Your task to perform on an android device: Show the shopping cart on target.com. Search for logitech g903 on target.com, select the first entry, add it to the cart, then select checkout. Image 0: 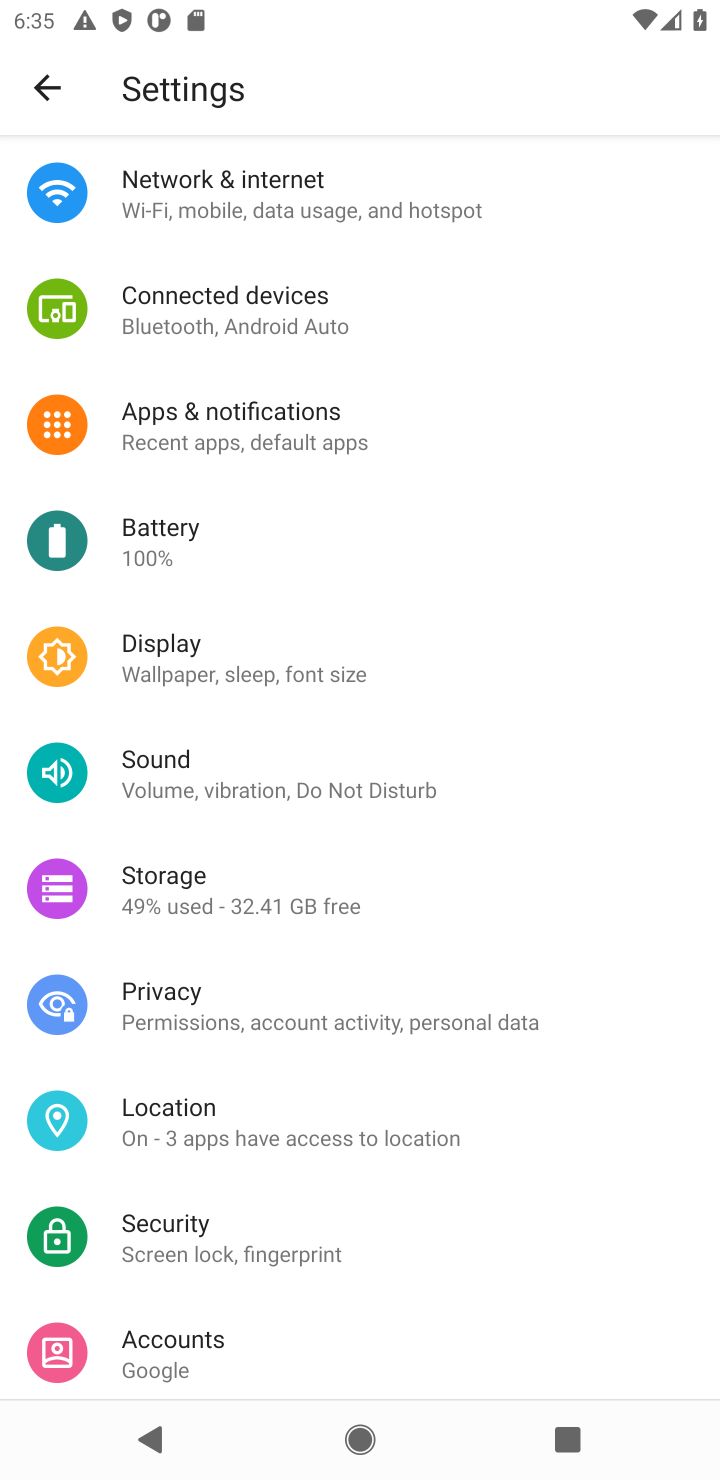
Step 0: press home button
Your task to perform on an android device: Show the shopping cart on target.com. Search for logitech g903 on target.com, select the first entry, add it to the cart, then select checkout. Image 1: 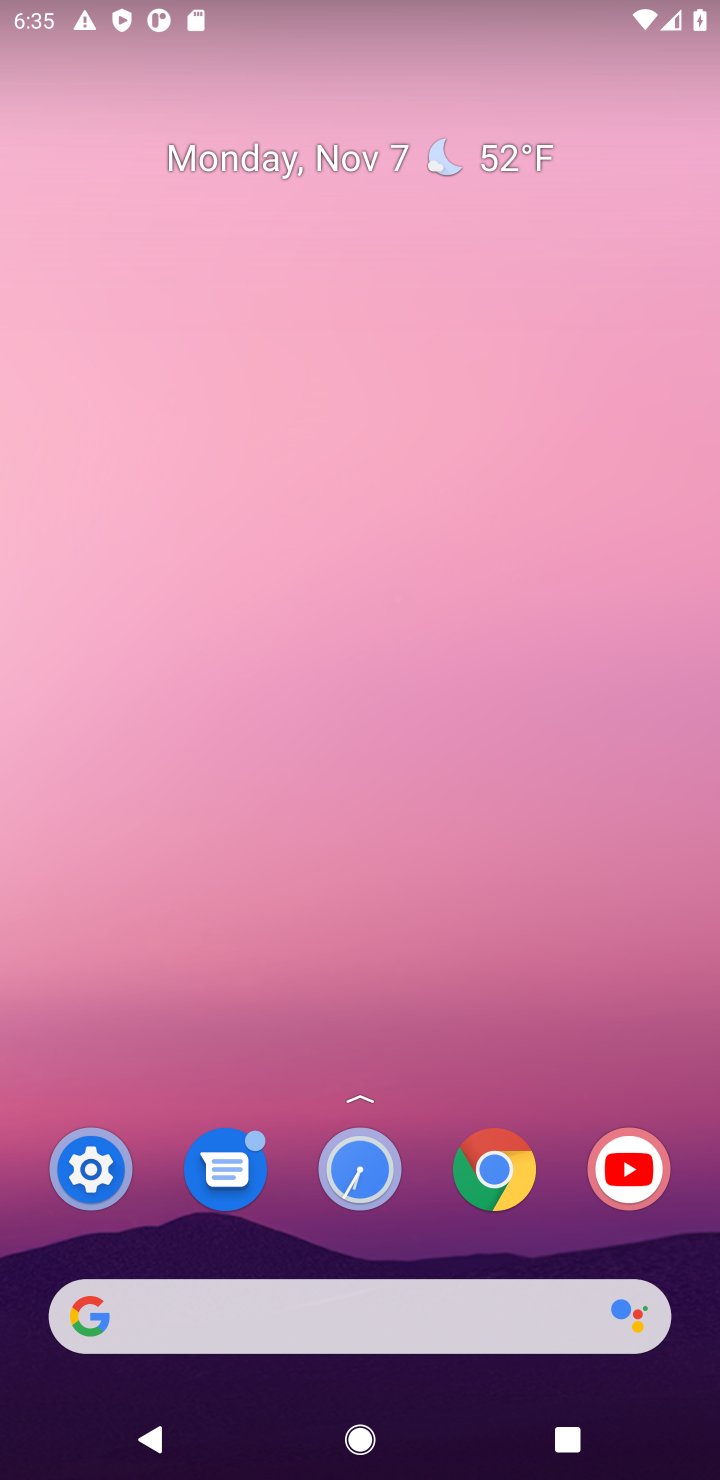
Step 1: click (509, 1180)
Your task to perform on an android device: Show the shopping cart on target.com. Search for logitech g903 on target.com, select the first entry, add it to the cart, then select checkout. Image 2: 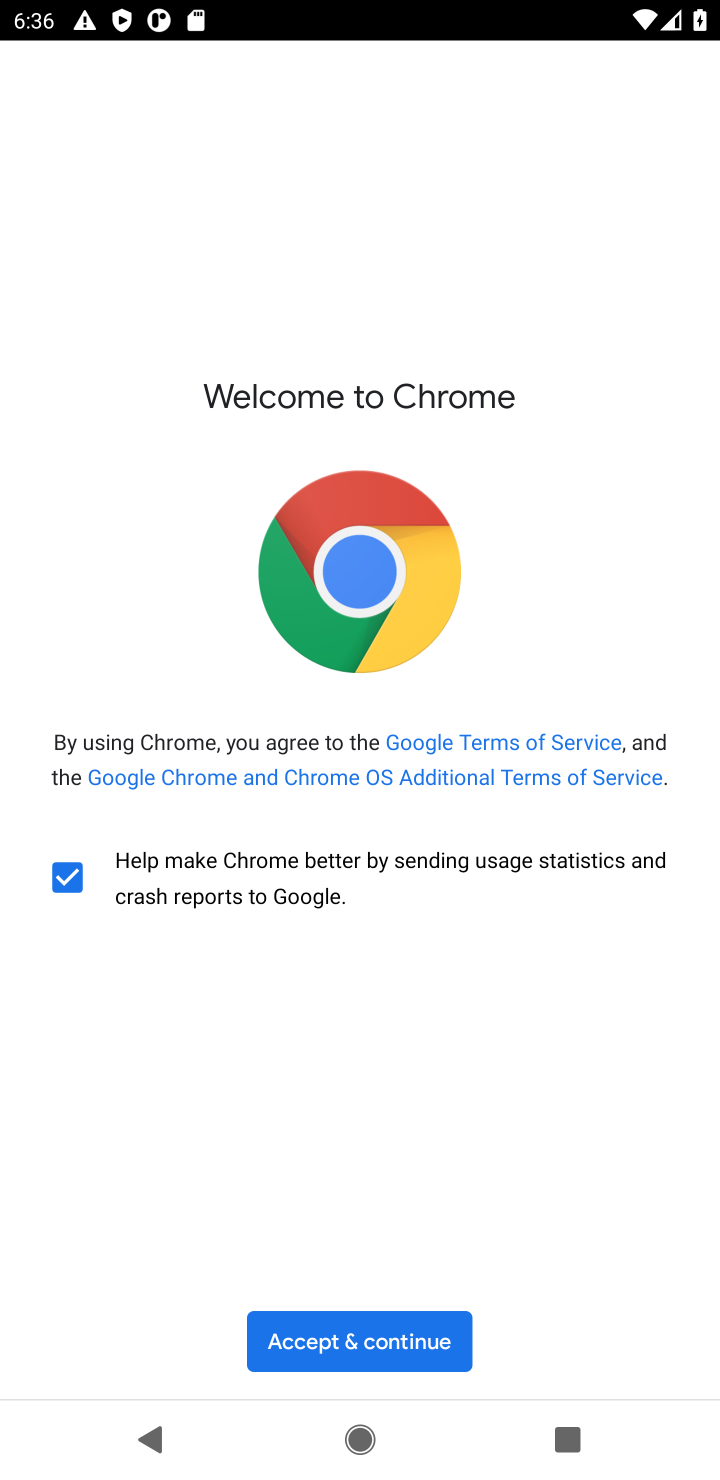
Step 2: click (317, 1340)
Your task to perform on an android device: Show the shopping cart on target.com. Search for logitech g903 on target.com, select the first entry, add it to the cart, then select checkout. Image 3: 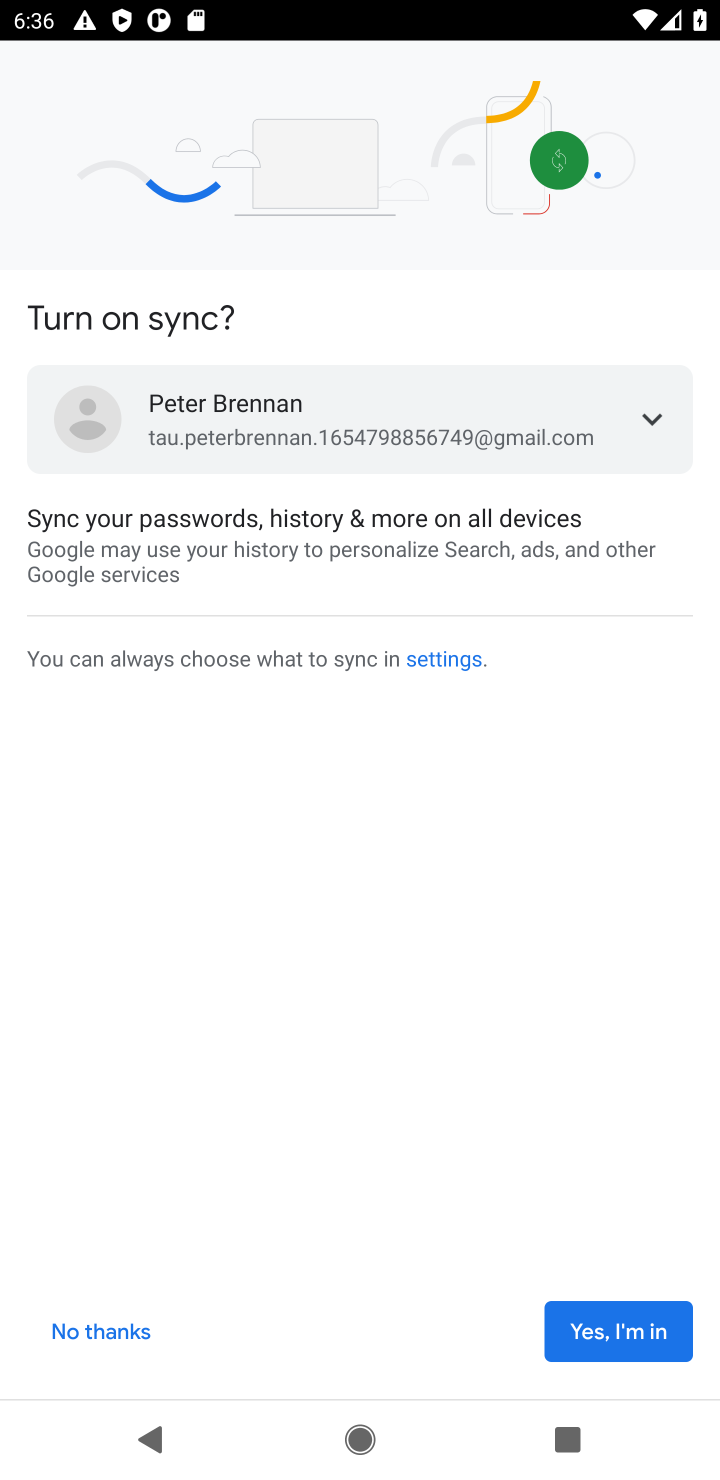
Step 3: click (609, 1341)
Your task to perform on an android device: Show the shopping cart on target.com. Search for logitech g903 on target.com, select the first entry, add it to the cart, then select checkout. Image 4: 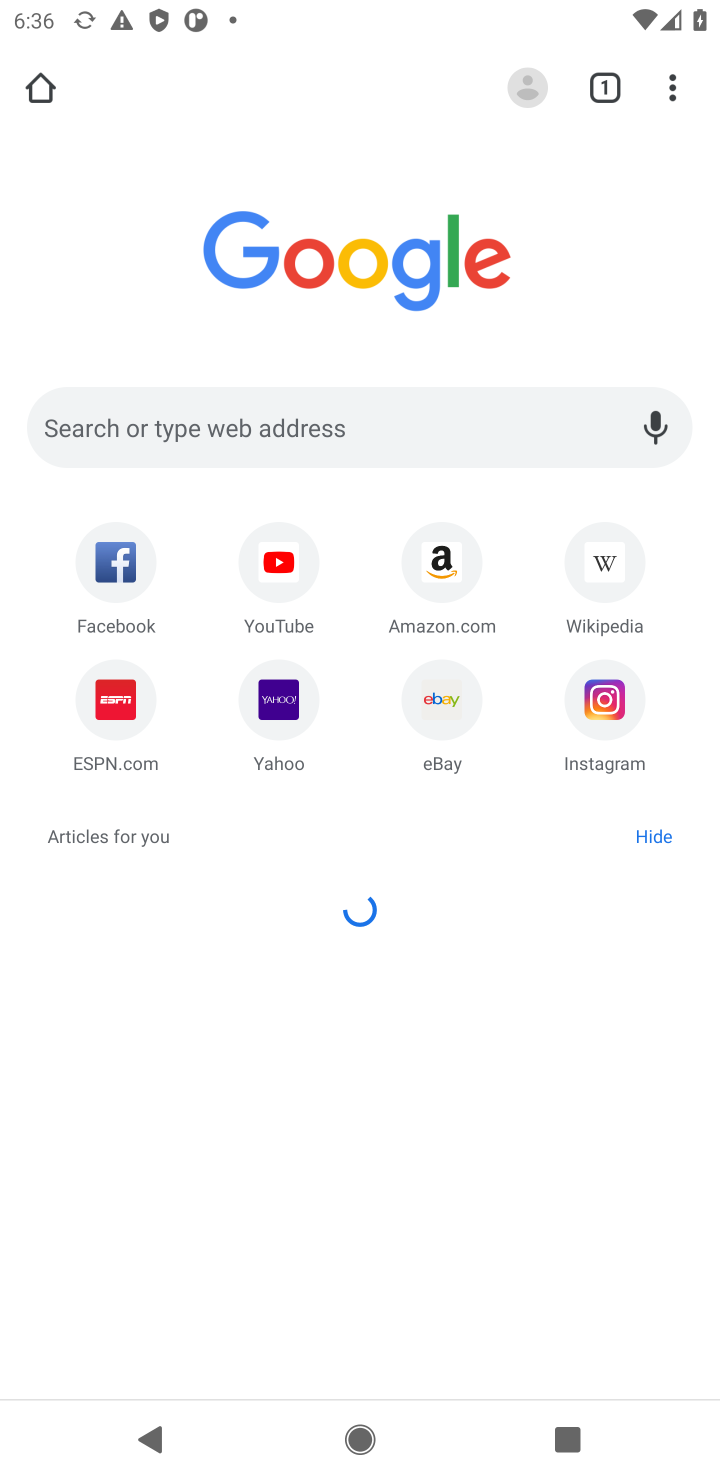
Step 4: click (328, 417)
Your task to perform on an android device: Show the shopping cart on target.com. Search for logitech g903 on target.com, select the first entry, add it to the cart, then select checkout. Image 5: 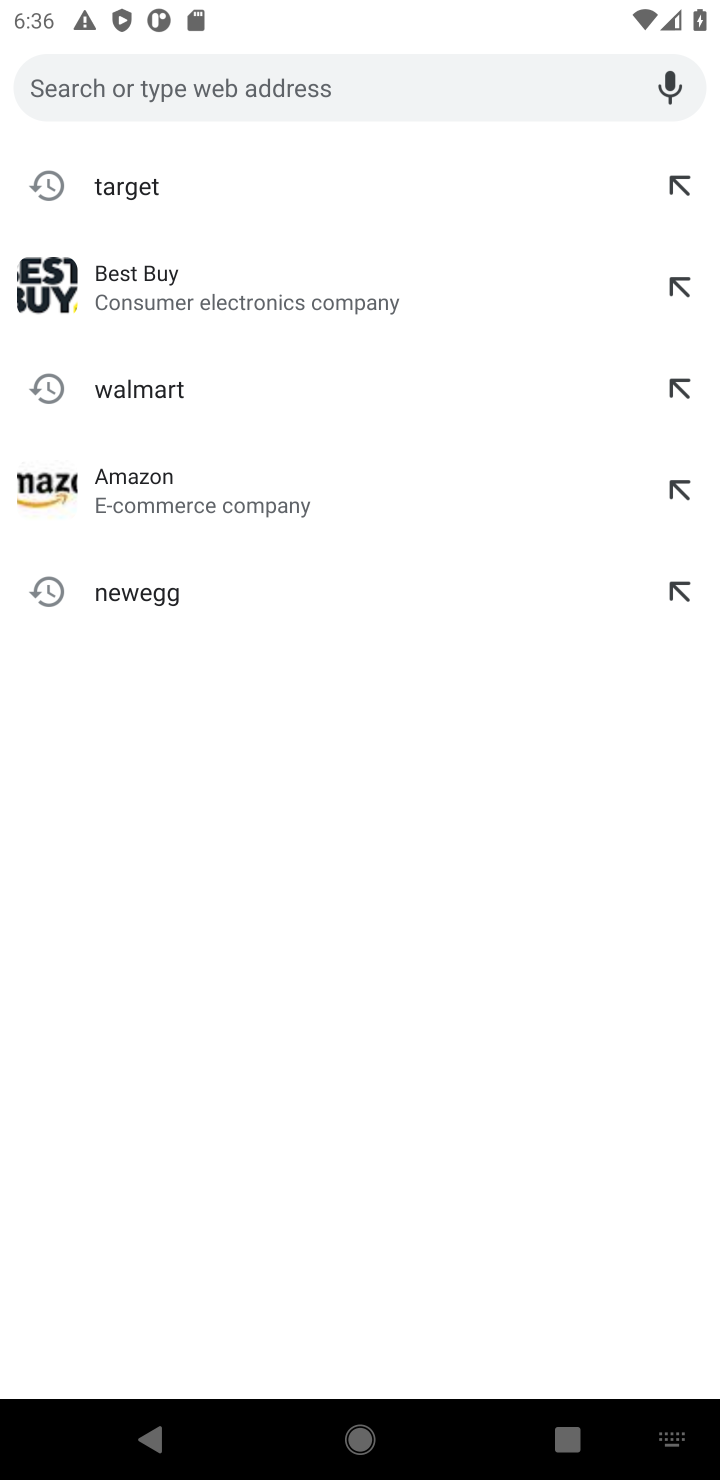
Step 5: click (119, 175)
Your task to perform on an android device: Show the shopping cart on target.com. Search for logitech g903 on target.com, select the first entry, add it to the cart, then select checkout. Image 6: 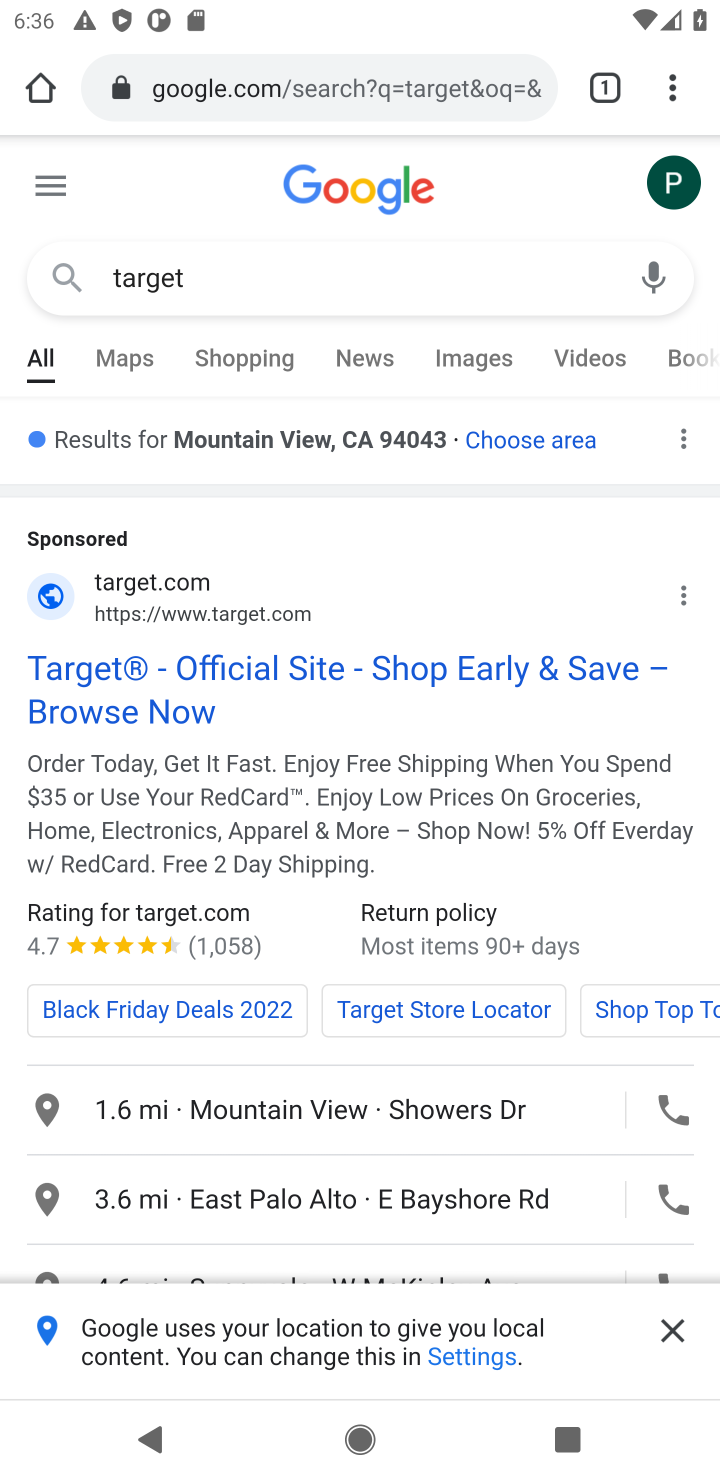
Step 6: click (676, 1321)
Your task to perform on an android device: Show the shopping cart on target.com. Search for logitech g903 on target.com, select the first entry, add it to the cart, then select checkout. Image 7: 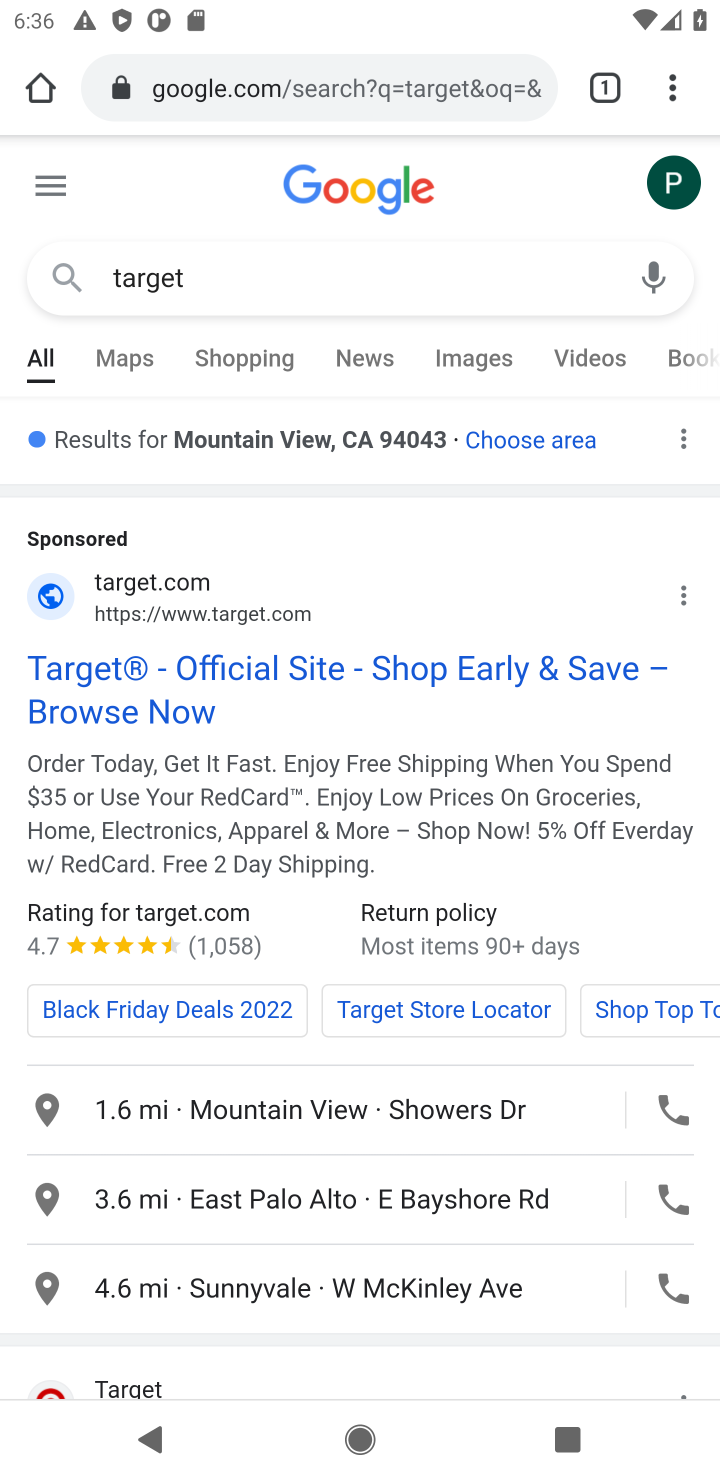
Step 7: drag from (438, 1279) to (492, 527)
Your task to perform on an android device: Show the shopping cart on target.com. Search for logitech g903 on target.com, select the first entry, add it to the cart, then select checkout. Image 8: 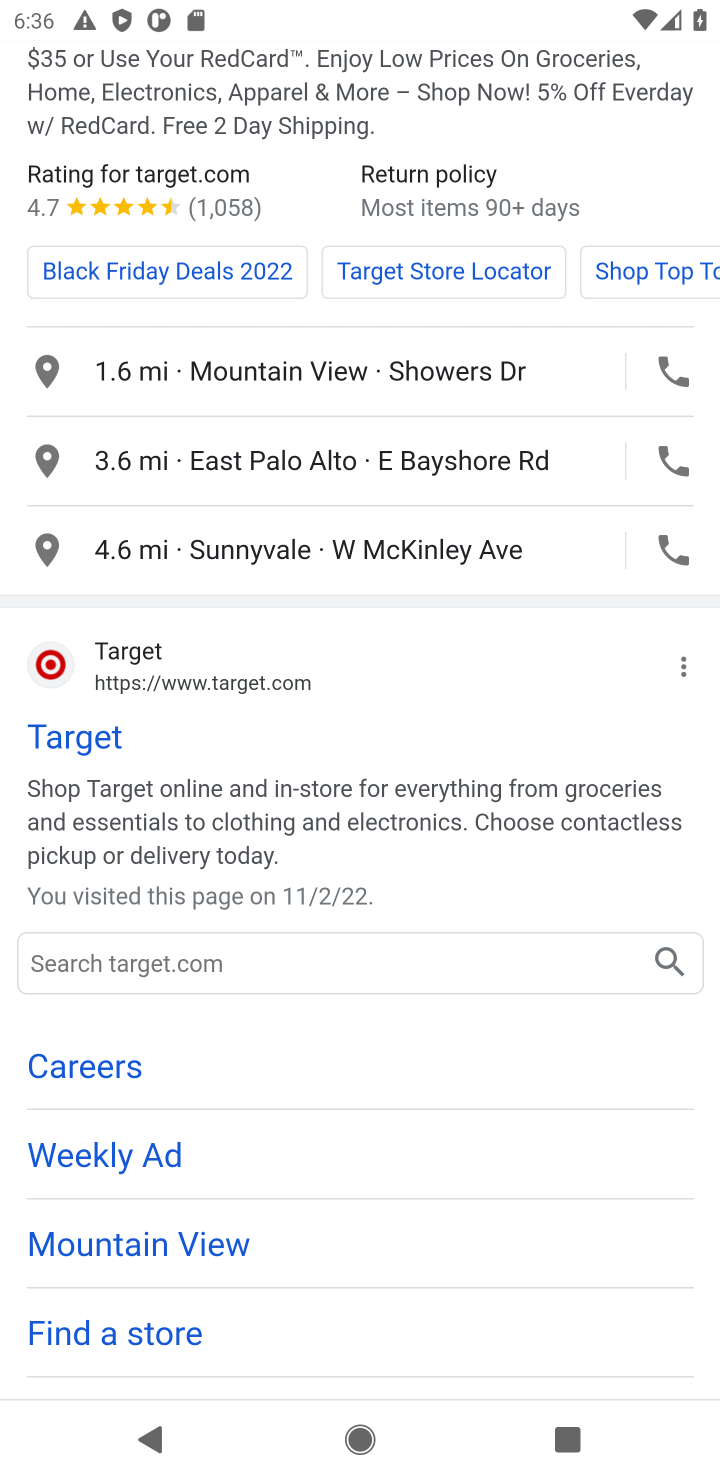
Step 8: click (114, 967)
Your task to perform on an android device: Show the shopping cart on target.com. Search for logitech g903 on target.com, select the first entry, add it to the cart, then select checkout. Image 9: 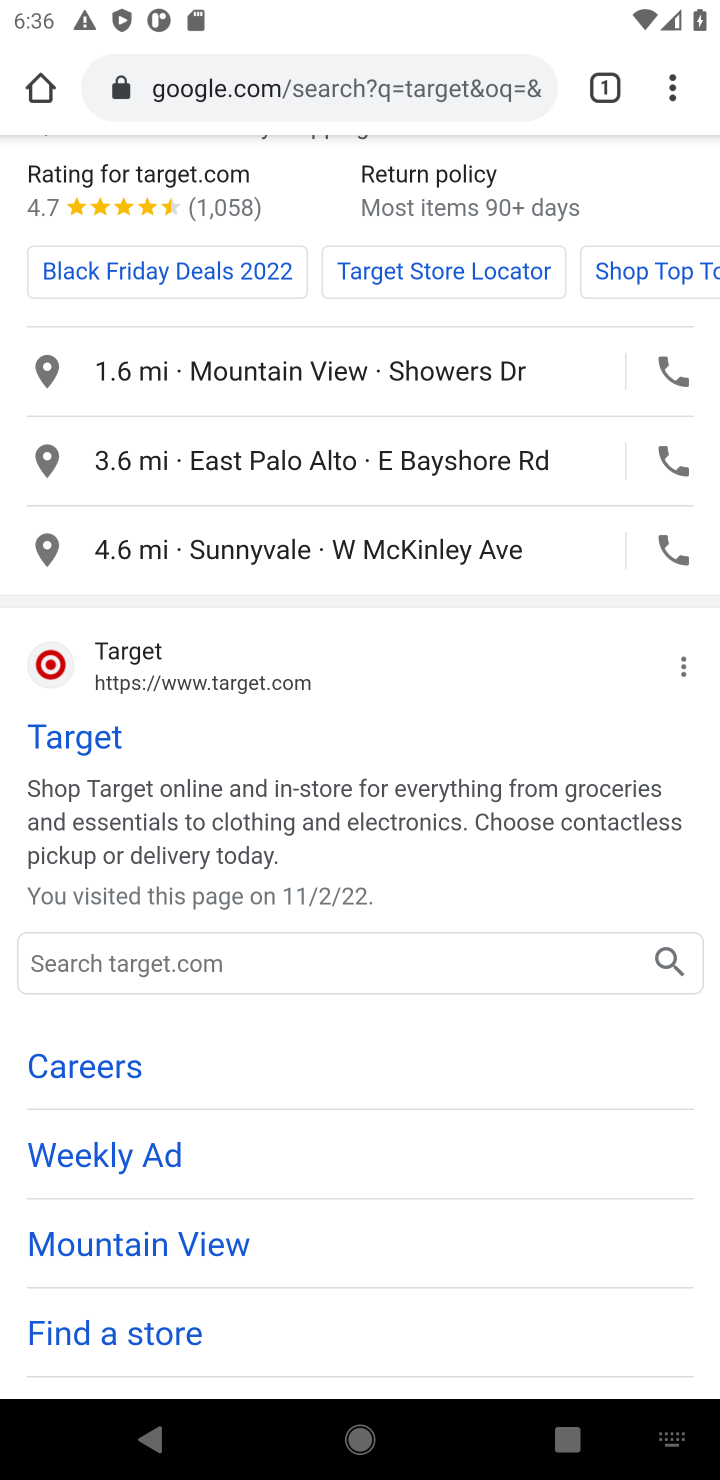
Step 9: type "logitech g903"
Your task to perform on an android device: Show the shopping cart on target.com. Search for logitech g903 on target.com, select the first entry, add it to the cart, then select checkout. Image 10: 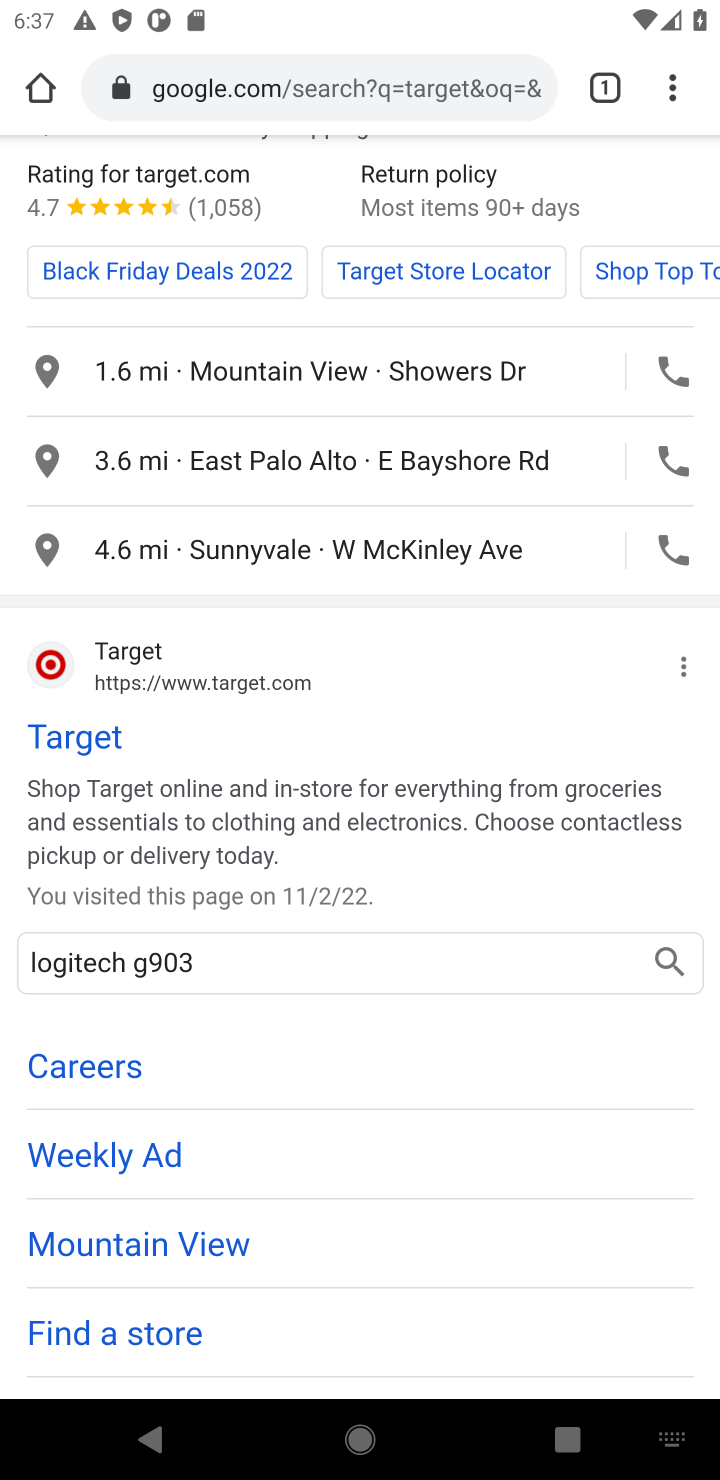
Step 10: click (668, 951)
Your task to perform on an android device: Show the shopping cart on target.com. Search for logitech g903 on target.com, select the first entry, add it to the cart, then select checkout. Image 11: 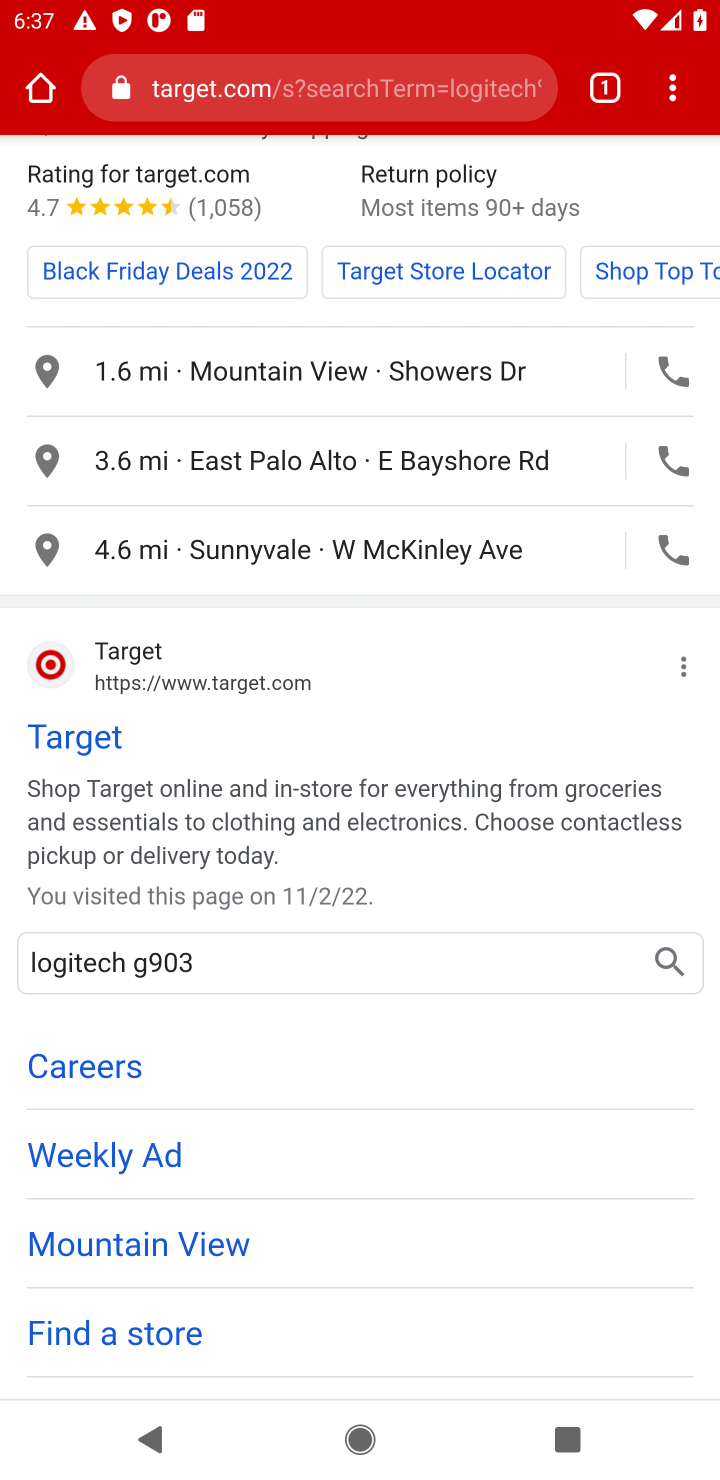
Step 11: click (666, 954)
Your task to perform on an android device: Show the shopping cart on target.com. Search for logitech g903 on target.com, select the first entry, add it to the cart, then select checkout. Image 12: 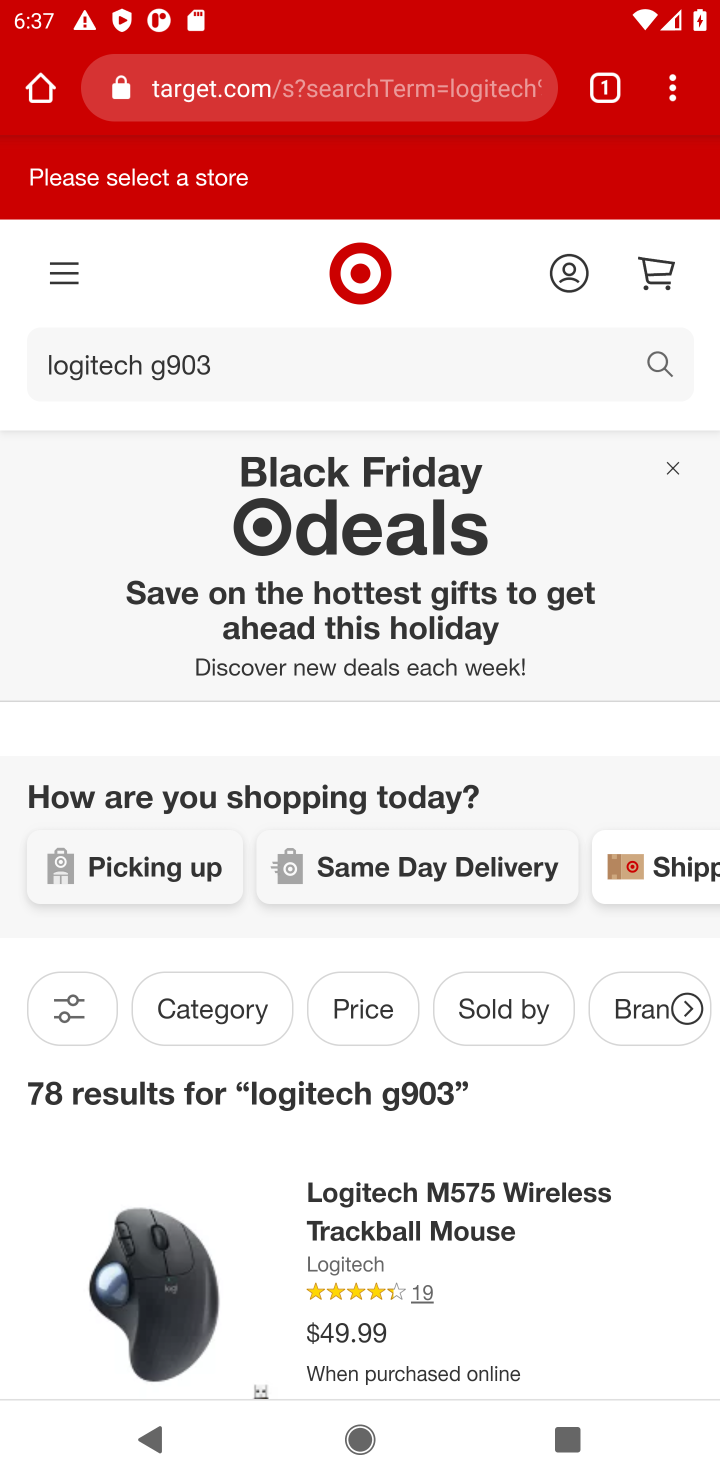
Step 12: drag from (504, 1124) to (410, 484)
Your task to perform on an android device: Show the shopping cart on target.com. Search for logitech g903 on target.com, select the first entry, add it to the cart, then select checkout. Image 13: 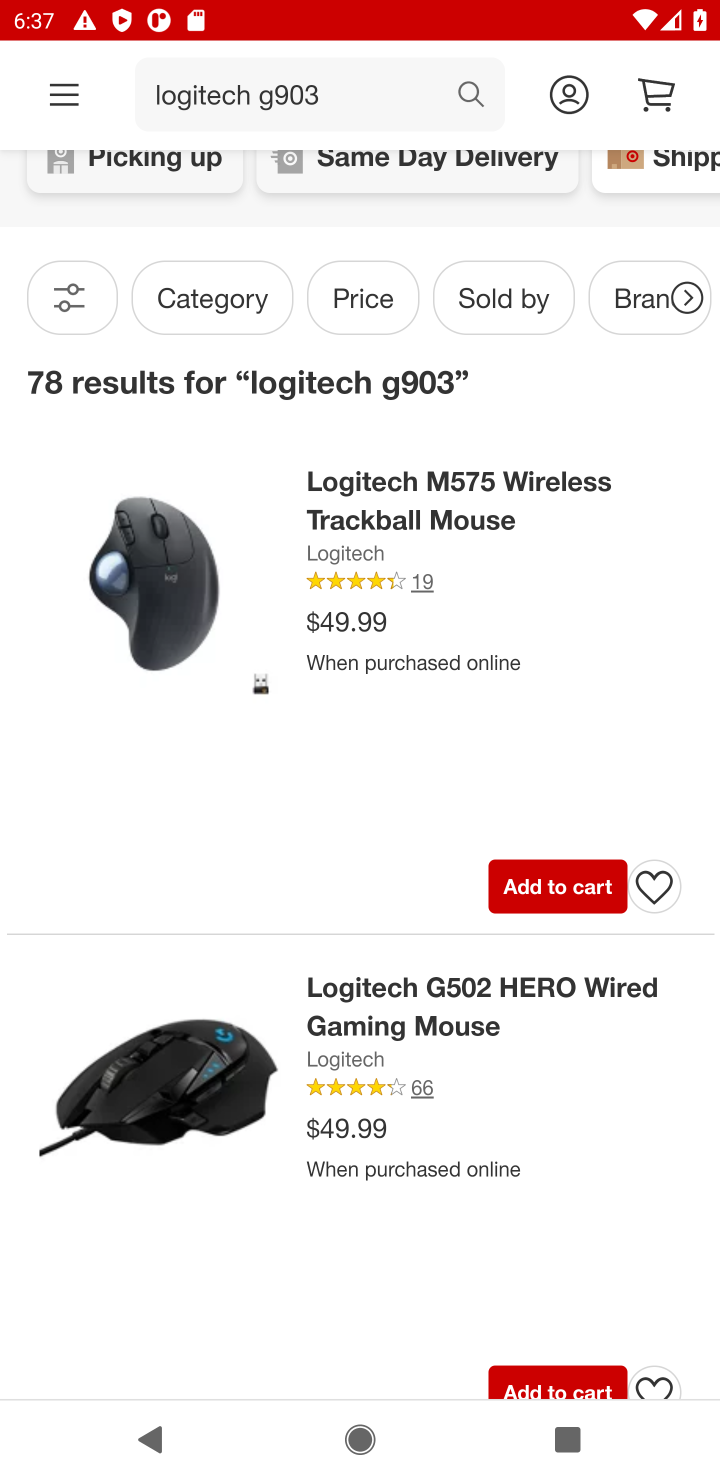
Step 13: drag from (529, 1204) to (459, 467)
Your task to perform on an android device: Show the shopping cart on target.com. Search for logitech g903 on target.com, select the first entry, add it to the cart, then select checkout. Image 14: 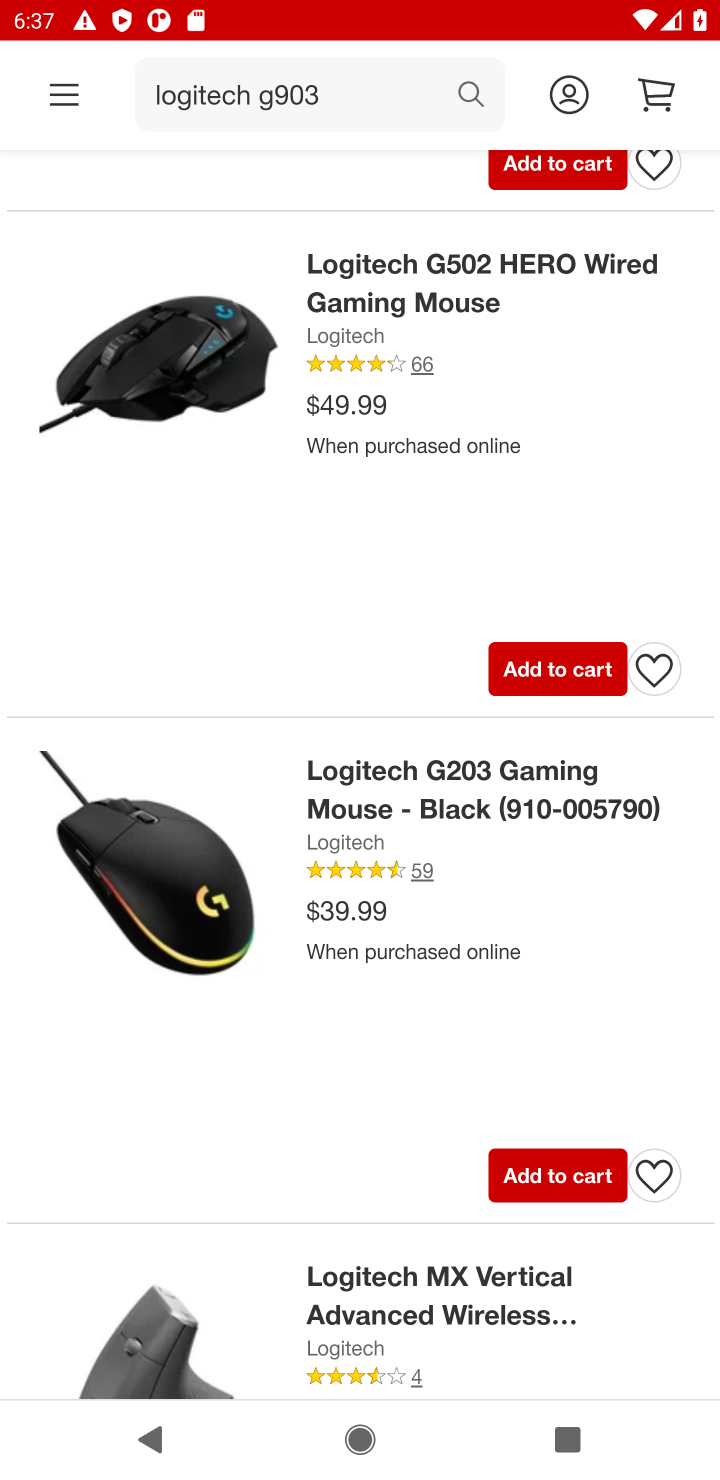
Step 14: click (559, 678)
Your task to perform on an android device: Show the shopping cart on target.com. Search for logitech g903 on target.com, select the first entry, add it to the cart, then select checkout. Image 15: 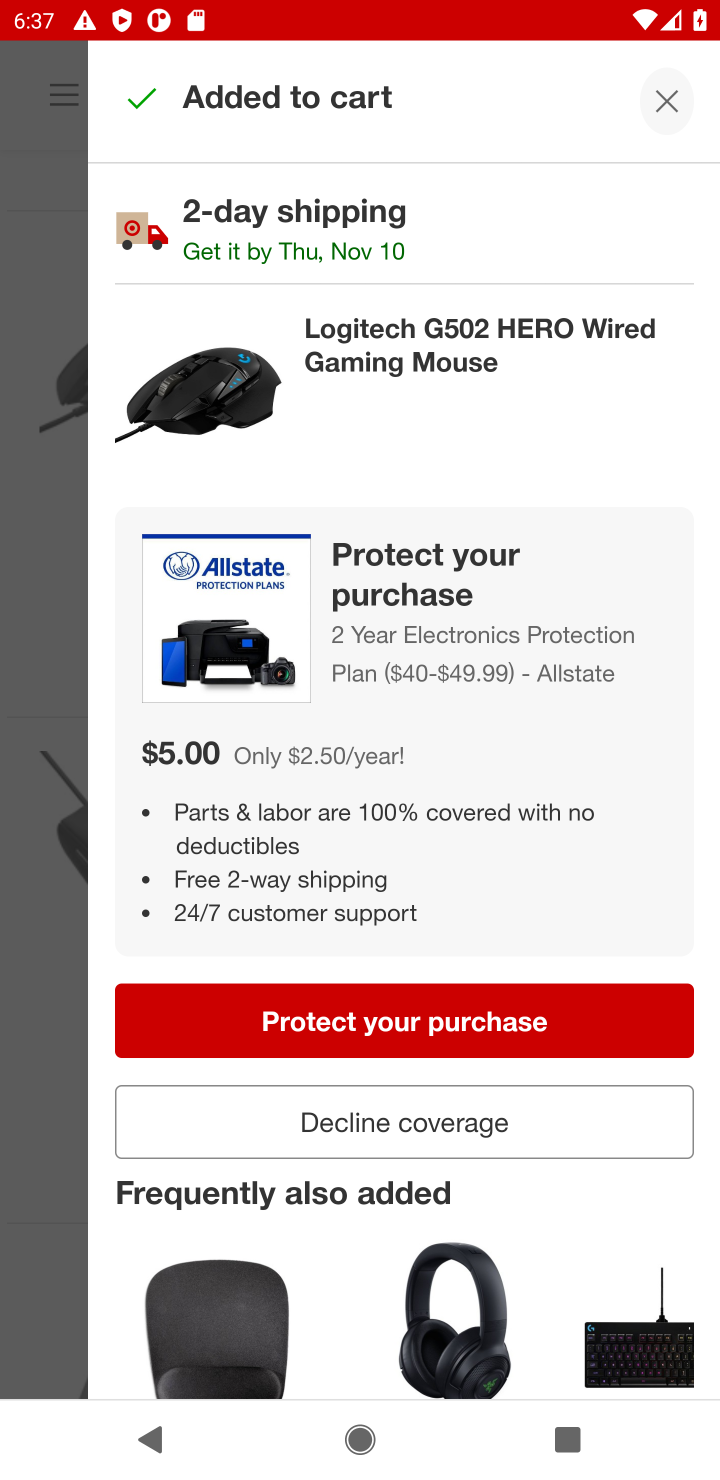
Step 15: task complete